Your task to perform on an android device: What's the weather like inToronto? Image 0: 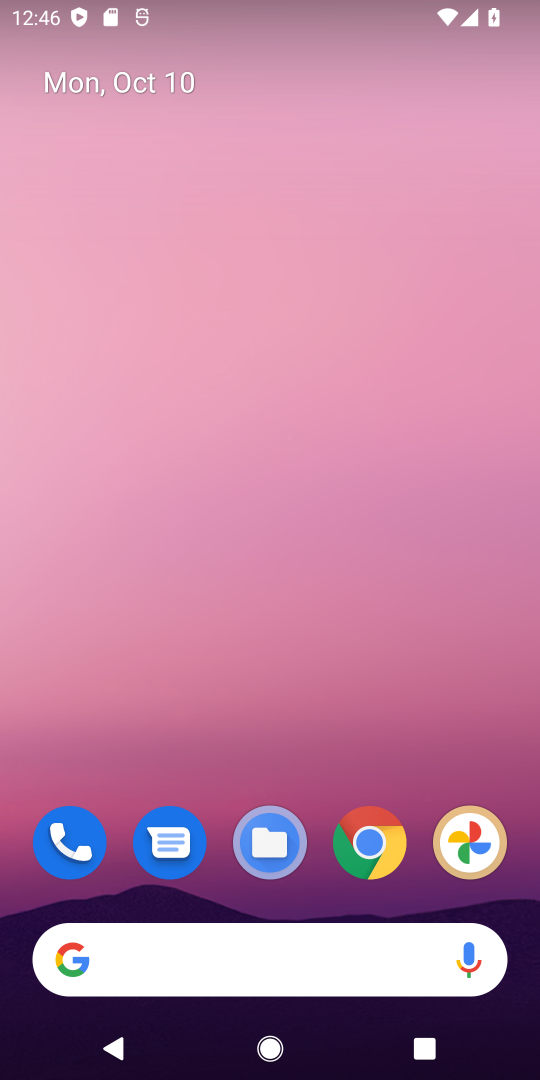
Step 0: click (365, 857)
Your task to perform on an android device: What's the weather like inToronto? Image 1: 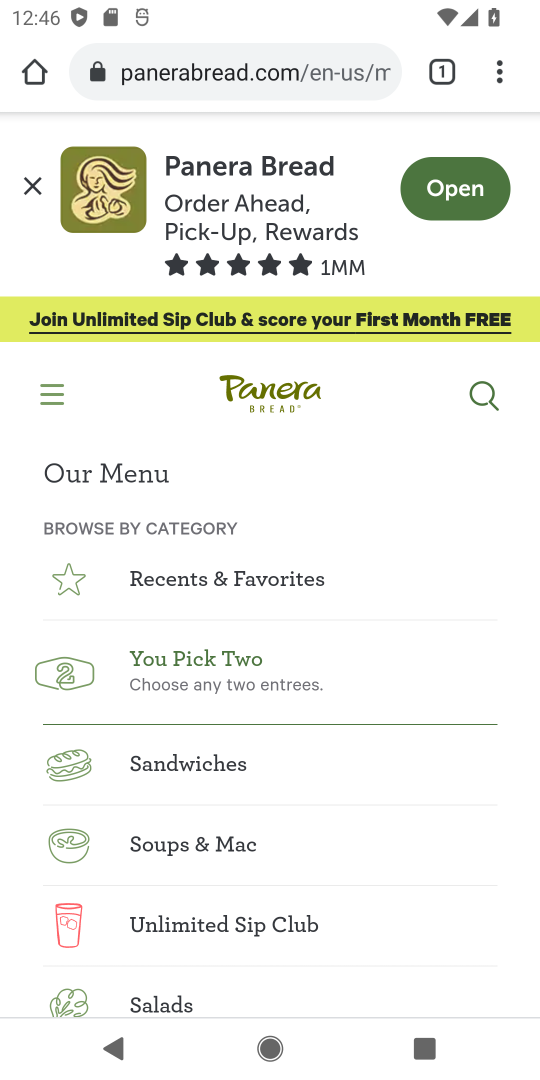
Step 1: click (251, 81)
Your task to perform on an android device: What's the weather like inToronto? Image 2: 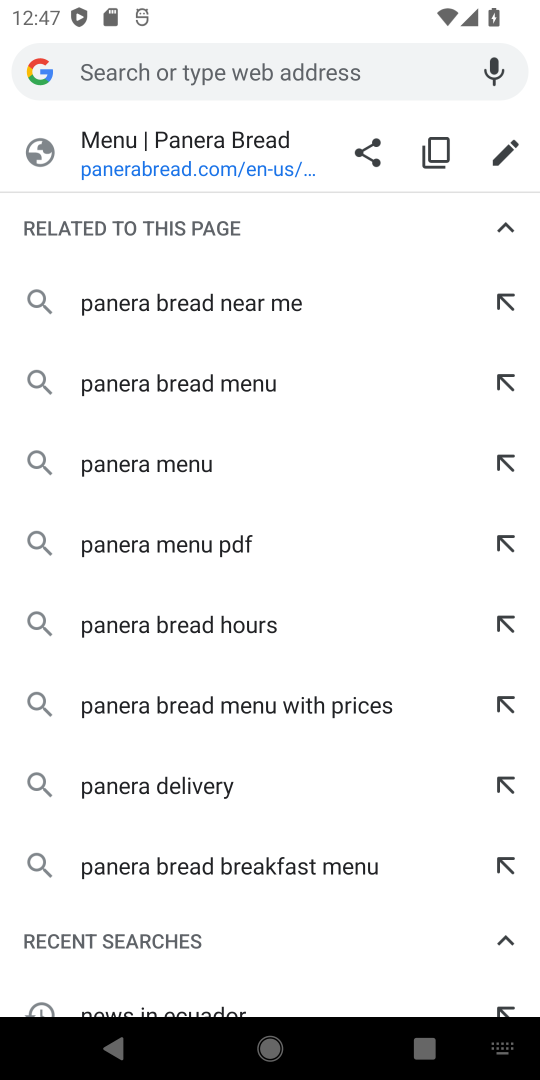
Step 2: type "weather like in Toronto"
Your task to perform on an android device: What's the weather like inToronto? Image 3: 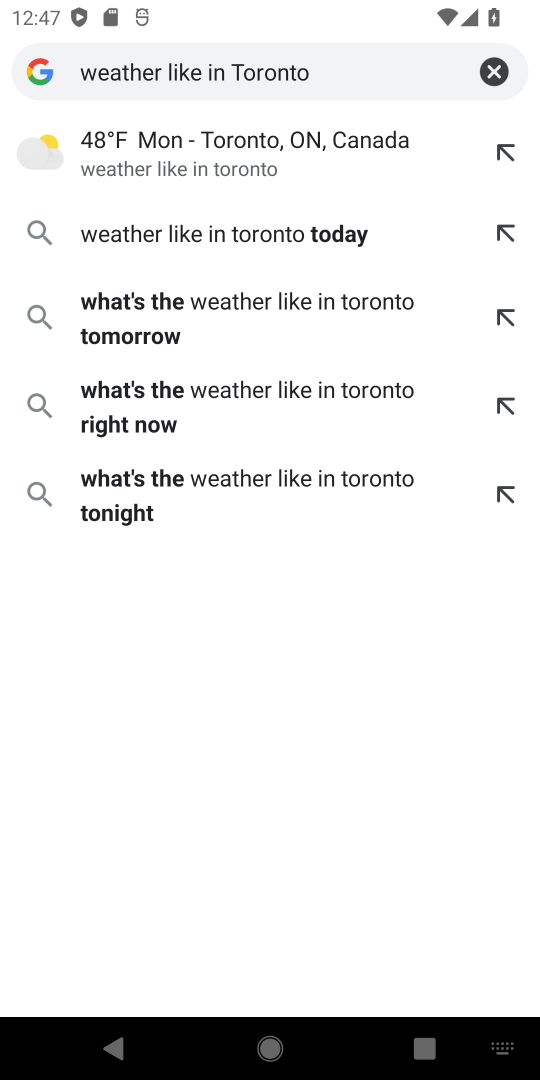
Step 3: press enter
Your task to perform on an android device: What's the weather like inToronto? Image 4: 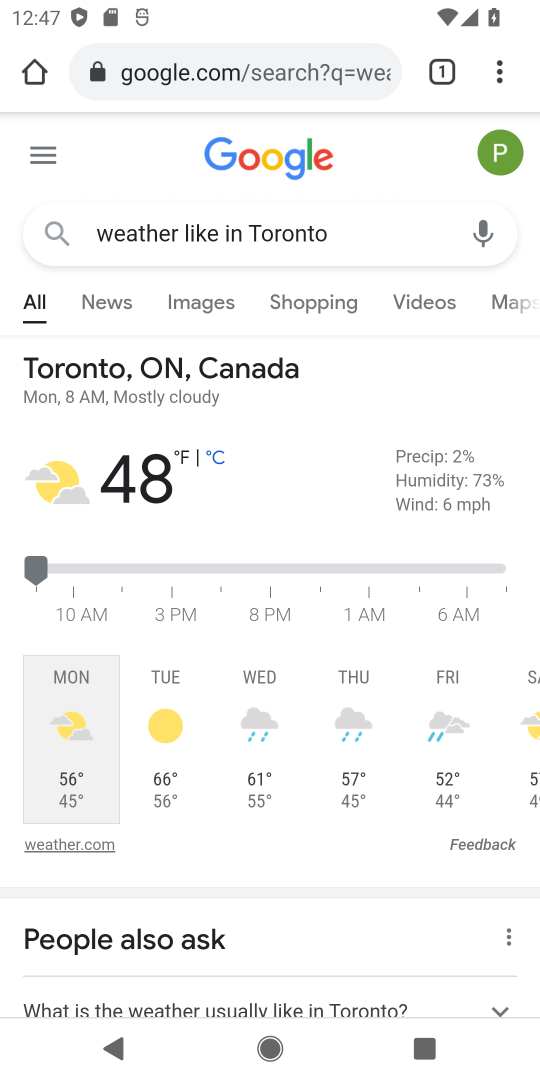
Step 4: task complete